Your task to perform on an android device: Search for vegetarian restaurants on Maps Image 0: 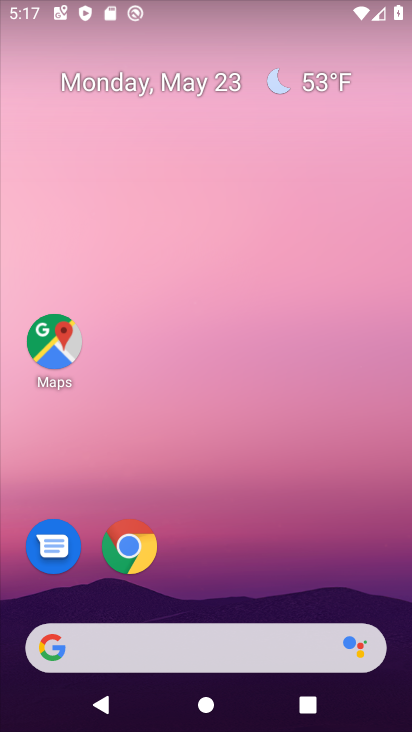
Step 0: click (53, 348)
Your task to perform on an android device: Search for vegetarian restaurants on Maps Image 1: 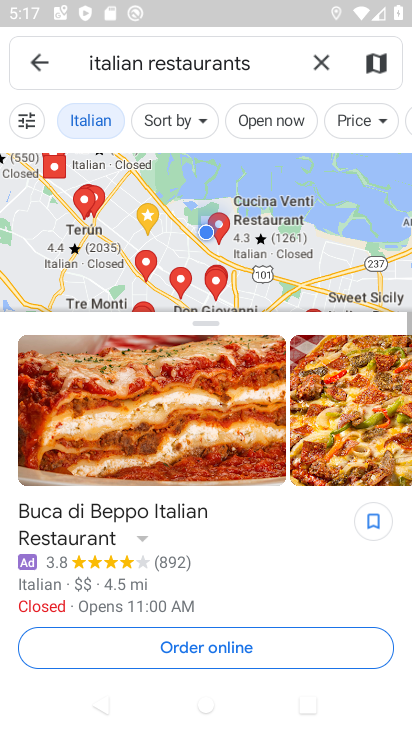
Step 1: click (324, 54)
Your task to perform on an android device: Search for vegetarian restaurants on Maps Image 2: 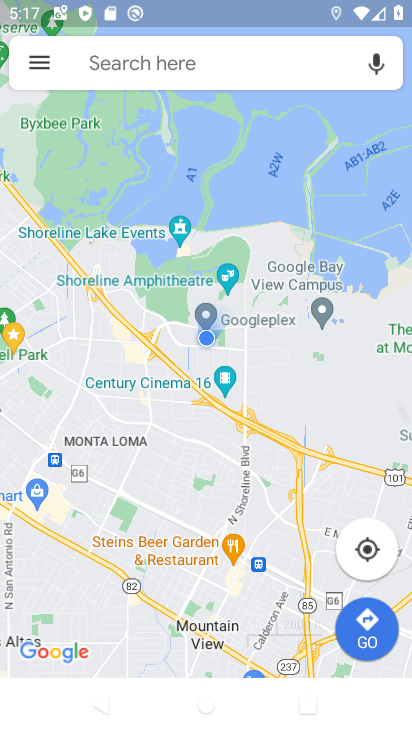
Step 2: click (231, 63)
Your task to perform on an android device: Search for vegetarian restaurants on Maps Image 3: 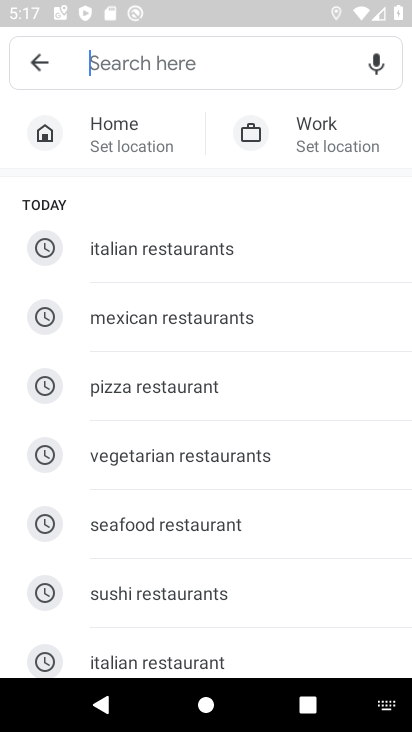
Step 3: click (178, 456)
Your task to perform on an android device: Search for vegetarian restaurants on Maps Image 4: 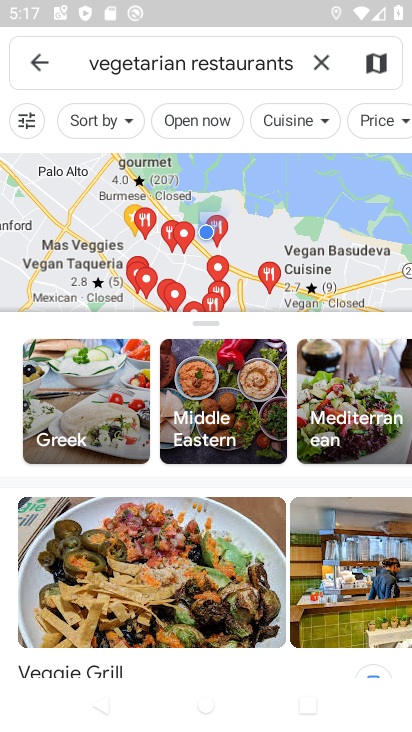
Step 4: task complete